Your task to perform on an android device: change the upload size in google photos Image 0: 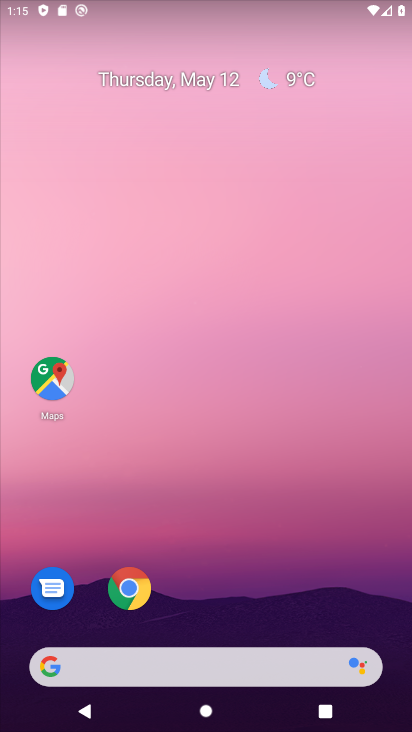
Step 0: drag from (210, 651) to (298, 137)
Your task to perform on an android device: change the upload size in google photos Image 1: 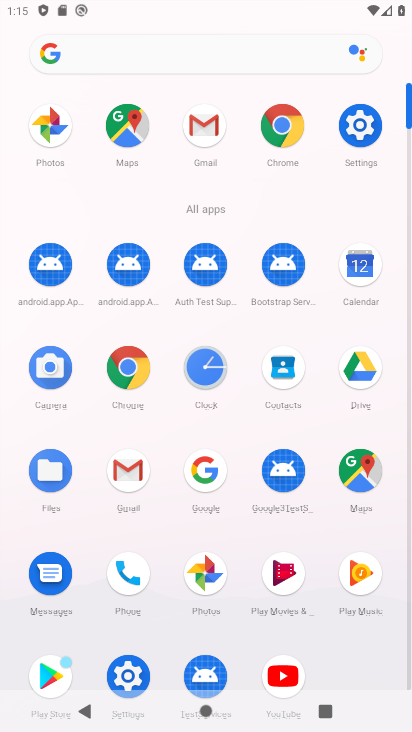
Step 1: click (210, 584)
Your task to perform on an android device: change the upload size in google photos Image 2: 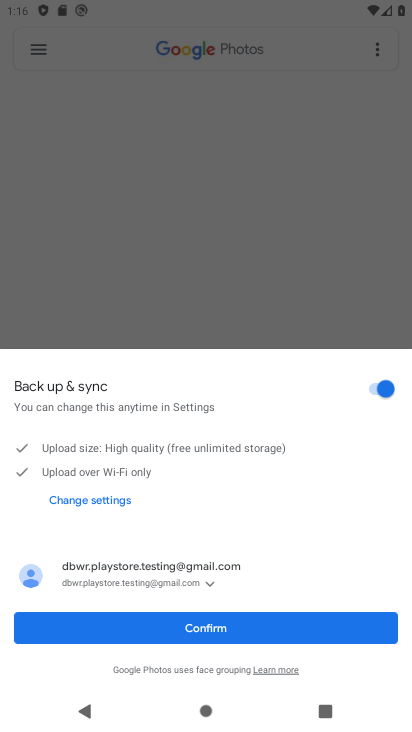
Step 2: click (234, 631)
Your task to perform on an android device: change the upload size in google photos Image 3: 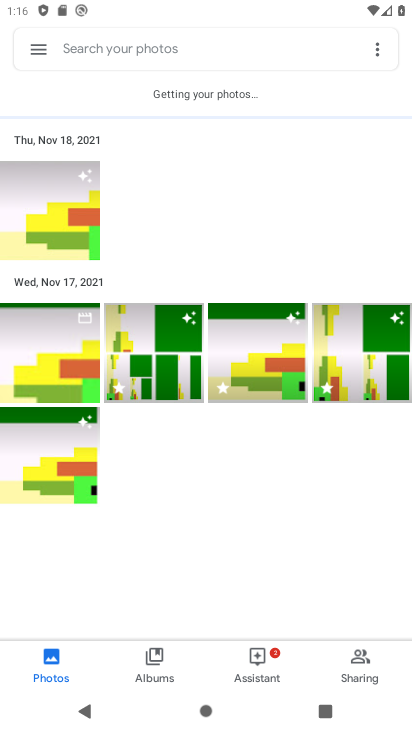
Step 3: click (53, 41)
Your task to perform on an android device: change the upload size in google photos Image 4: 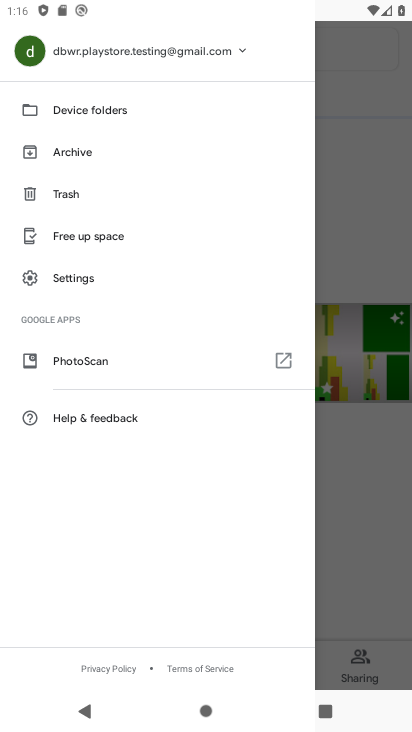
Step 4: click (113, 278)
Your task to perform on an android device: change the upload size in google photos Image 5: 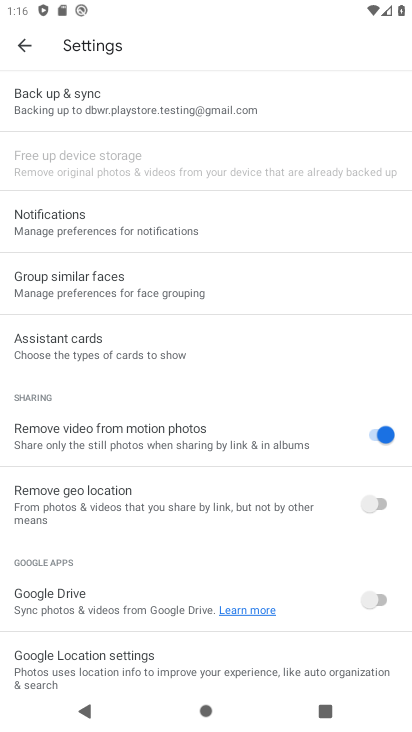
Step 5: click (207, 111)
Your task to perform on an android device: change the upload size in google photos Image 6: 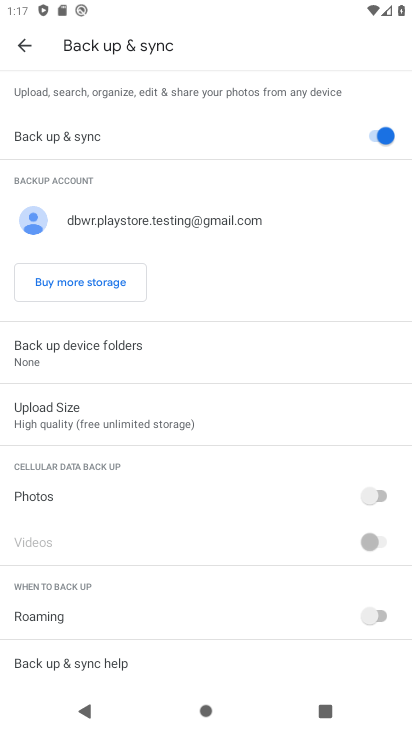
Step 6: click (191, 420)
Your task to perform on an android device: change the upload size in google photos Image 7: 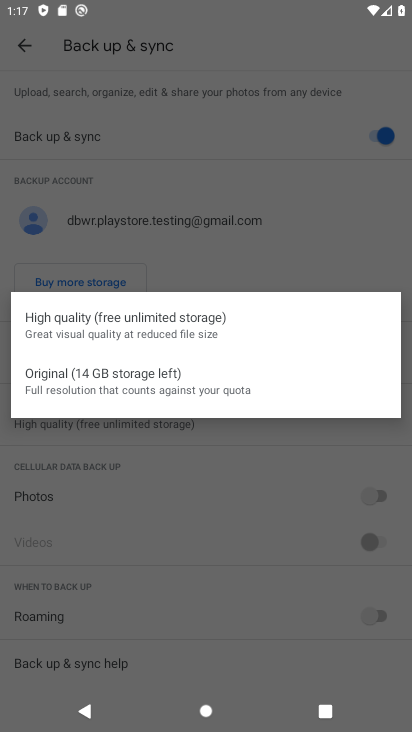
Step 7: click (227, 408)
Your task to perform on an android device: change the upload size in google photos Image 8: 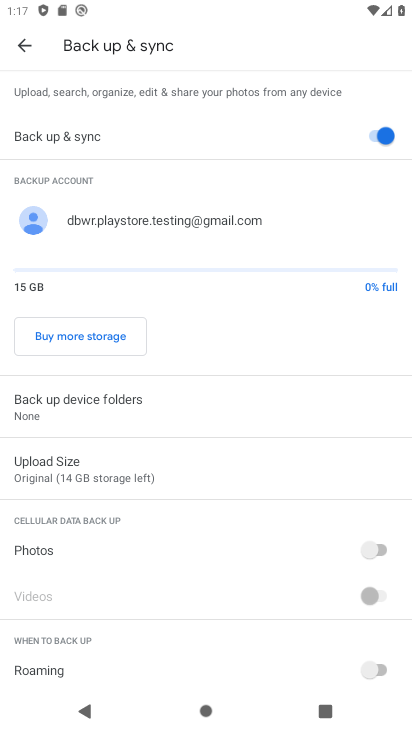
Step 8: task complete